Your task to perform on an android device: turn on bluetooth scan Image 0: 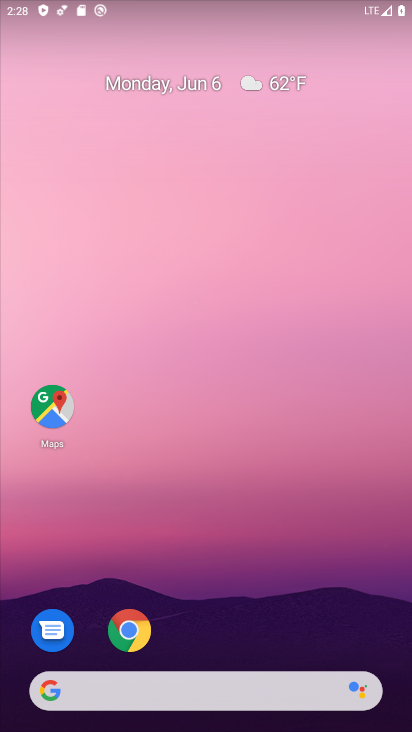
Step 0: drag from (180, 619) to (180, 0)
Your task to perform on an android device: turn on bluetooth scan Image 1: 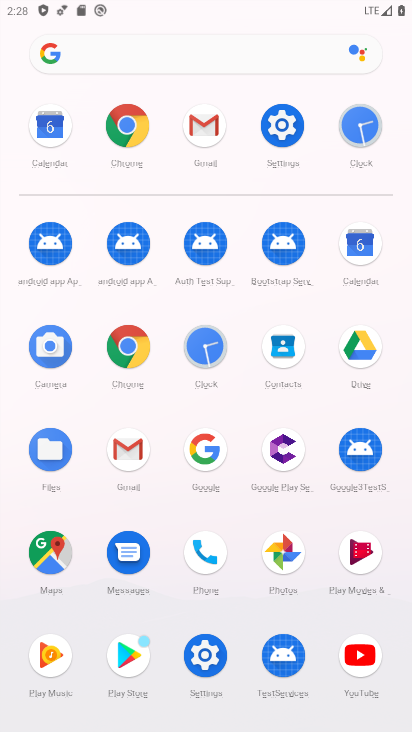
Step 1: click (286, 134)
Your task to perform on an android device: turn on bluetooth scan Image 2: 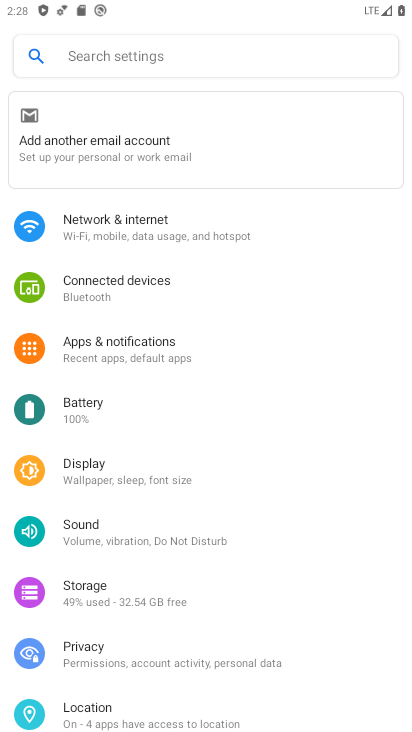
Step 2: drag from (234, 649) to (114, 140)
Your task to perform on an android device: turn on bluetooth scan Image 3: 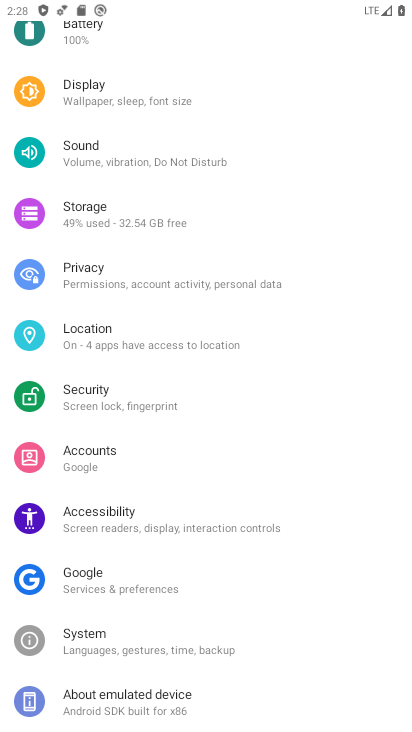
Step 3: click (94, 327)
Your task to perform on an android device: turn on bluetooth scan Image 4: 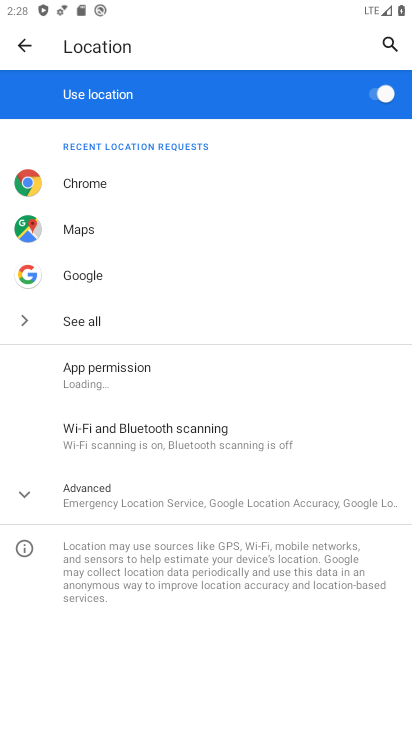
Step 4: click (149, 453)
Your task to perform on an android device: turn on bluetooth scan Image 5: 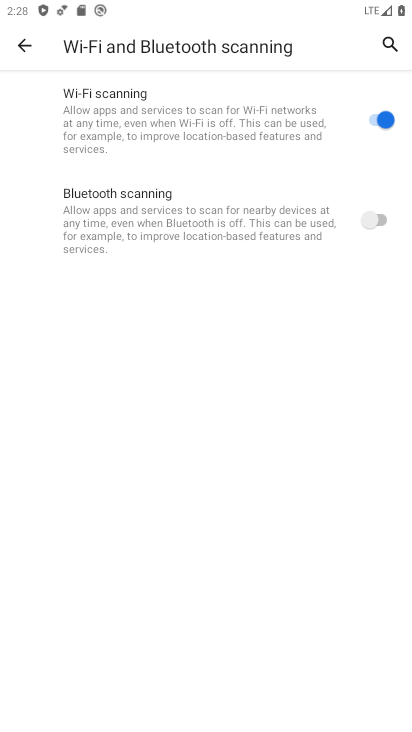
Step 5: click (355, 222)
Your task to perform on an android device: turn on bluetooth scan Image 6: 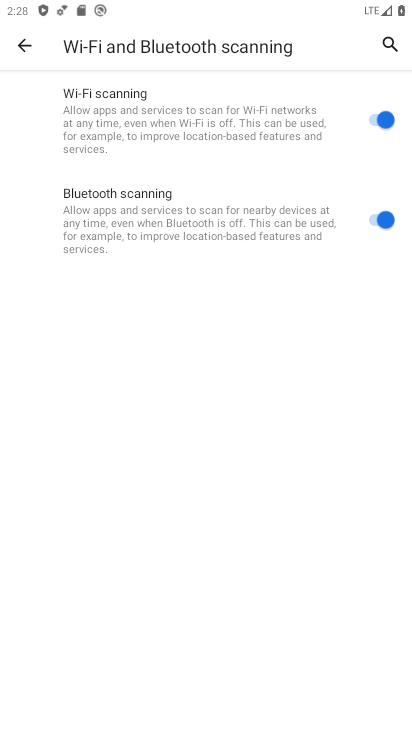
Step 6: task complete